Your task to perform on an android device: allow cookies in the chrome app Image 0: 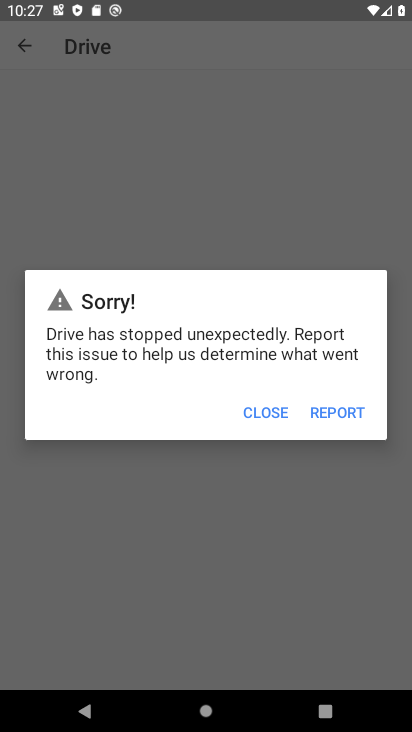
Step 0: press home button
Your task to perform on an android device: allow cookies in the chrome app Image 1: 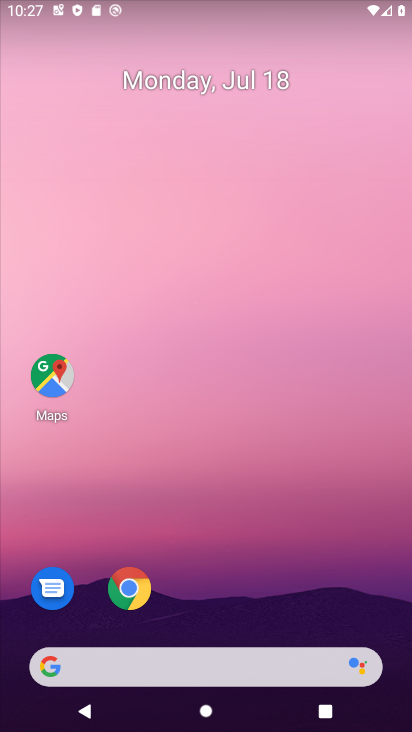
Step 1: drag from (235, 706) to (235, 155)
Your task to perform on an android device: allow cookies in the chrome app Image 2: 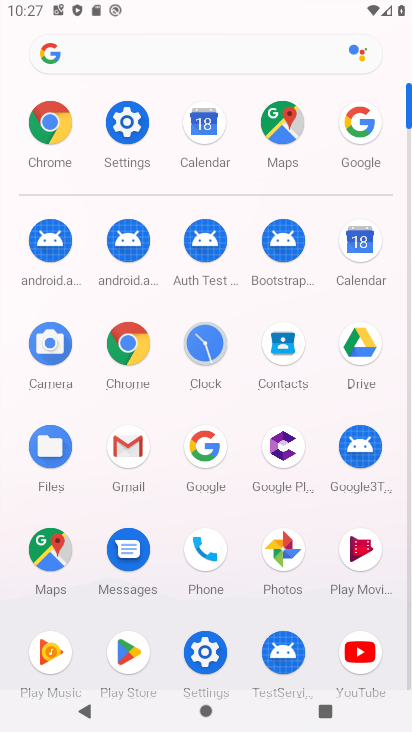
Step 2: click (127, 347)
Your task to perform on an android device: allow cookies in the chrome app Image 3: 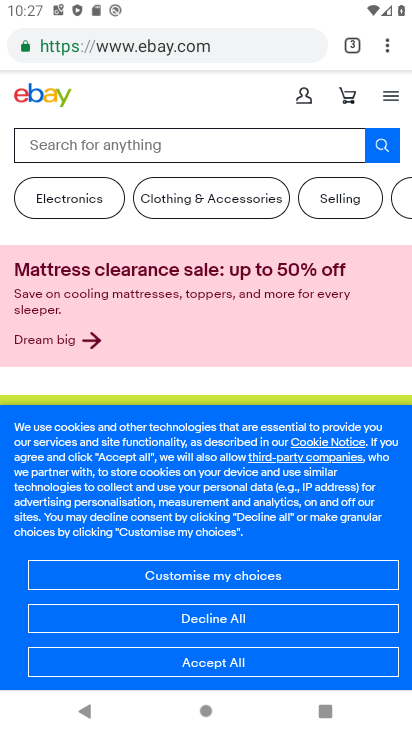
Step 3: click (388, 52)
Your task to perform on an android device: allow cookies in the chrome app Image 4: 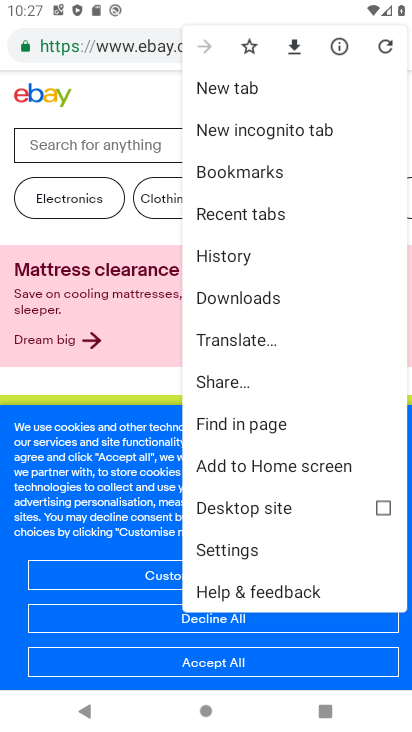
Step 4: click (235, 548)
Your task to perform on an android device: allow cookies in the chrome app Image 5: 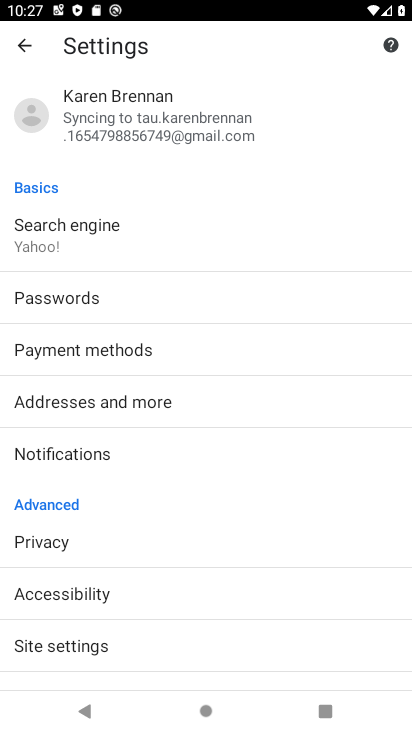
Step 5: click (41, 639)
Your task to perform on an android device: allow cookies in the chrome app Image 6: 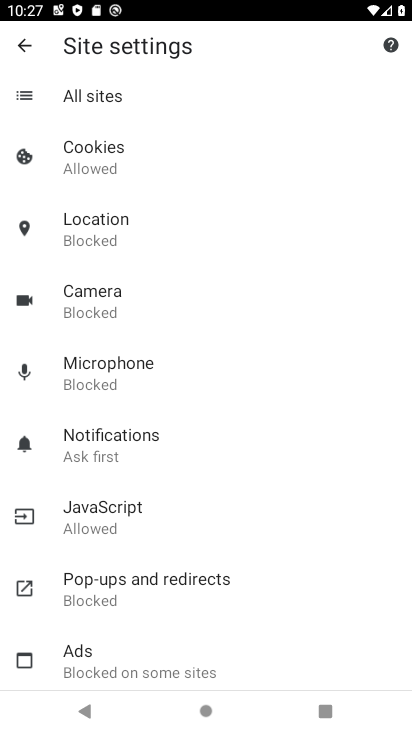
Step 6: click (83, 154)
Your task to perform on an android device: allow cookies in the chrome app Image 7: 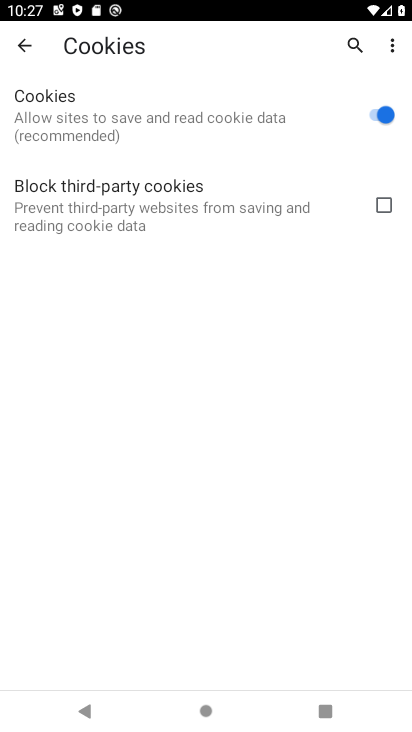
Step 7: task complete